Your task to perform on an android device: empty trash in the gmail app Image 0: 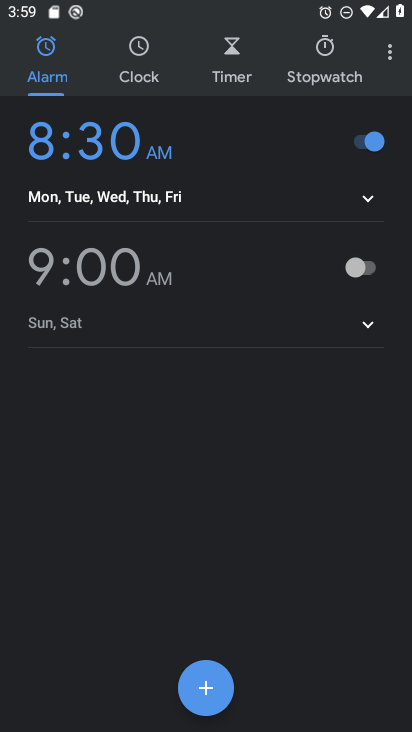
Step 0: press home button
Your task to perform on an android device: empty trash in the gmail app Image 1: 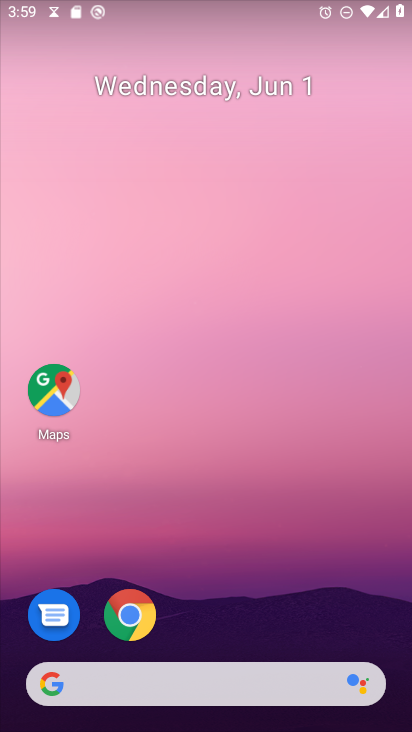
Step 1: drag from (212, 638) to (232, 98)
Your task to perform on an android device: empty trash in the gmail app Image 2: 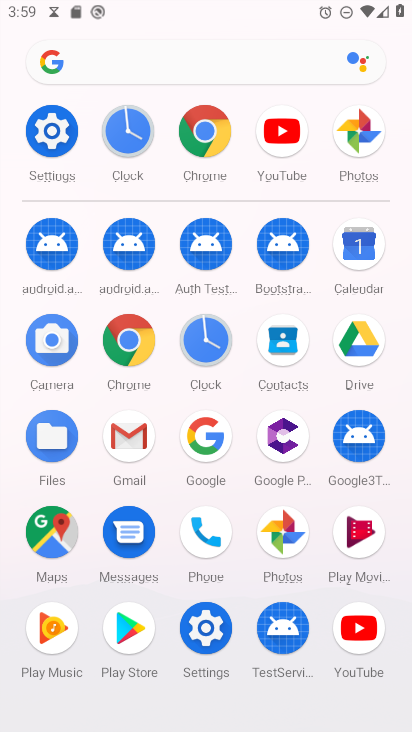
Step 2: click (125, 430)
Your task to perform on an android device: empty trash in the gmail app Image 3: 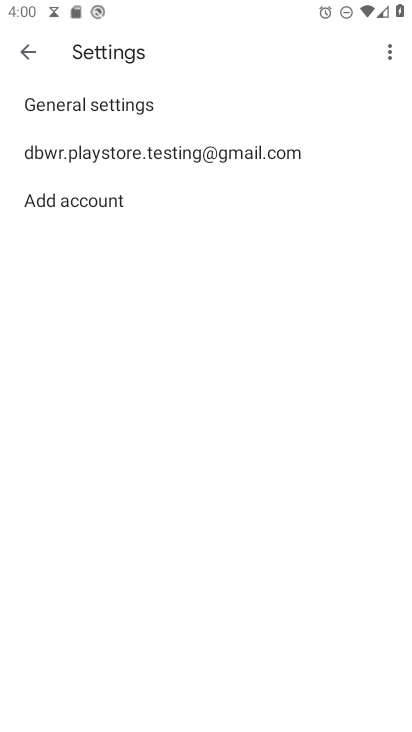
Step 3: click (28, 58)
Your task to perform on an android device: empty trash in the gmail app Image 4: 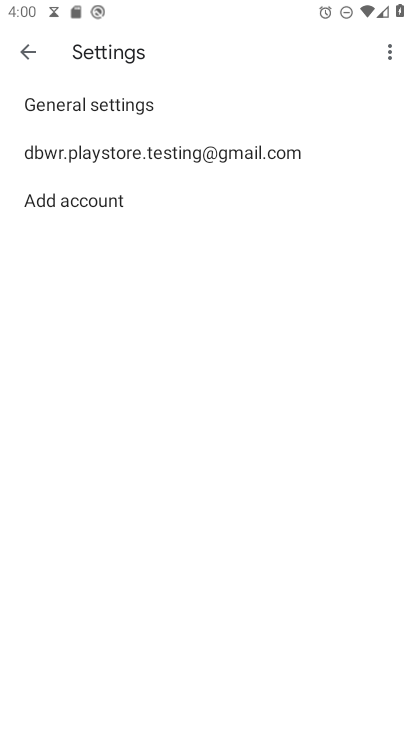
Step 4: click (24, 53)
Your task to perform on an android device: empty trash in the gmail app Image 5: 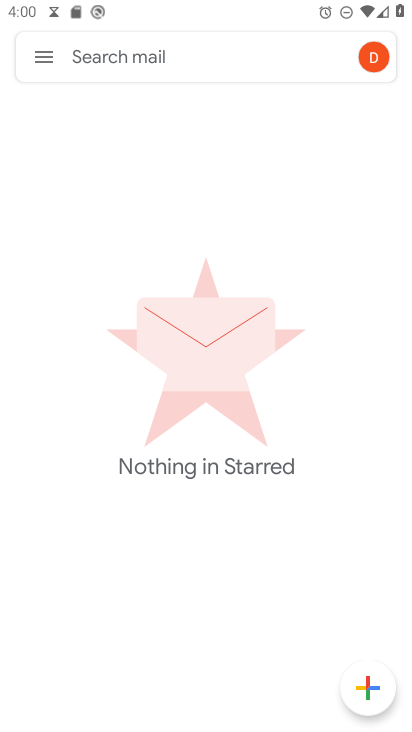
Step 5: click (46, 49)
Your task to perform on an android device: empty trash in the gmail app Image 6: 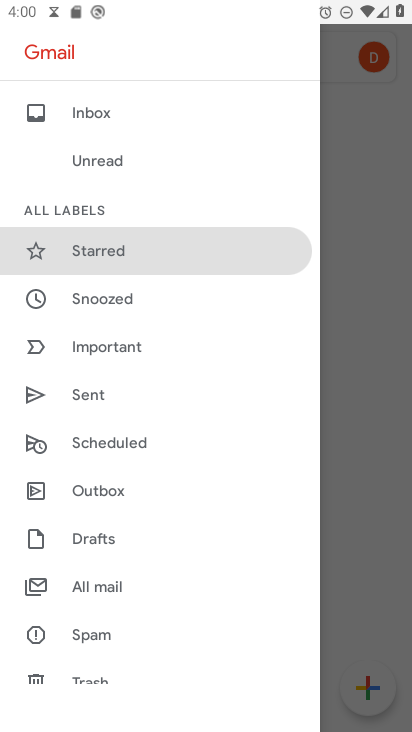
Step 6: click (111, 675)
Your task to perform on an android device: empty trash in the gmail app Image 7: 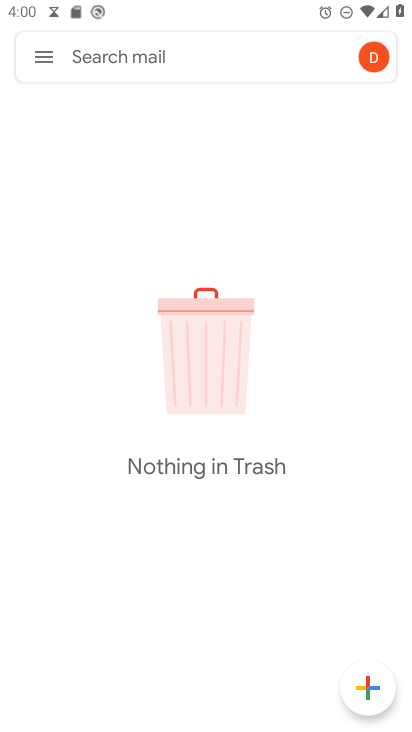
Step 7: task complete